Your task to perform on an android device: Open my contact list Image 0: 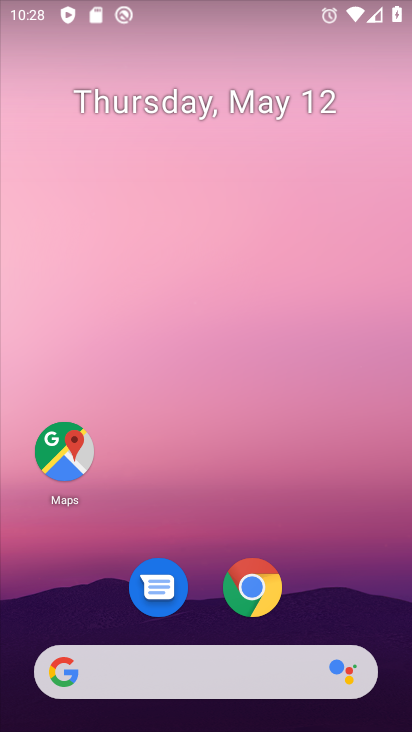
Step 0: drag from (314, 583) to (294, 95)
Your task to perform on an android device: Open my contact list Image 1: 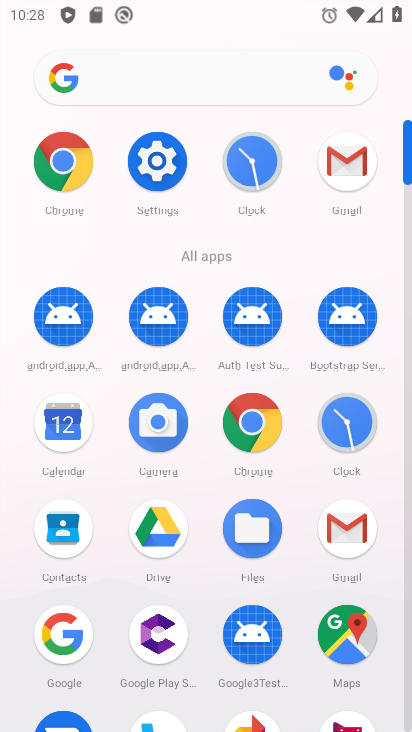
Step 1: drag from (376, 604) to (381, 262)
Your task to perform on an android device: Open my contact list Image 2: 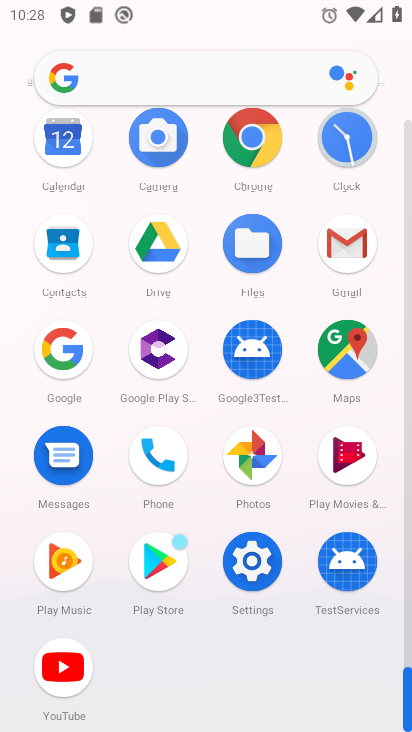
Step 2: click (146, 458)
Your task to perform on an android device: Open my contact list Image 3: 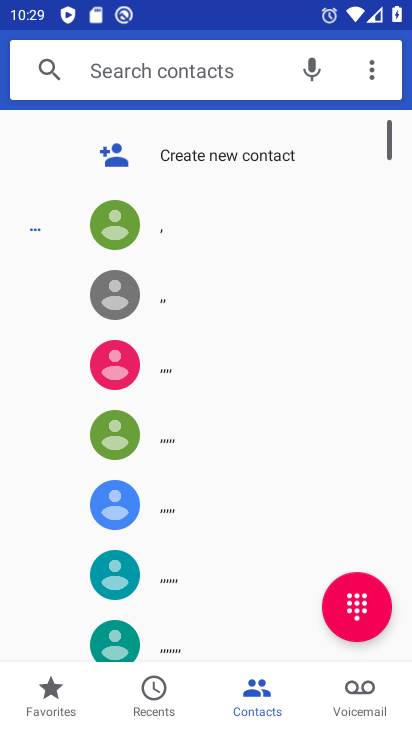
Step 3: task complete